Your task to perform on an android device: Is it going to rain tomorrow? Image 0: 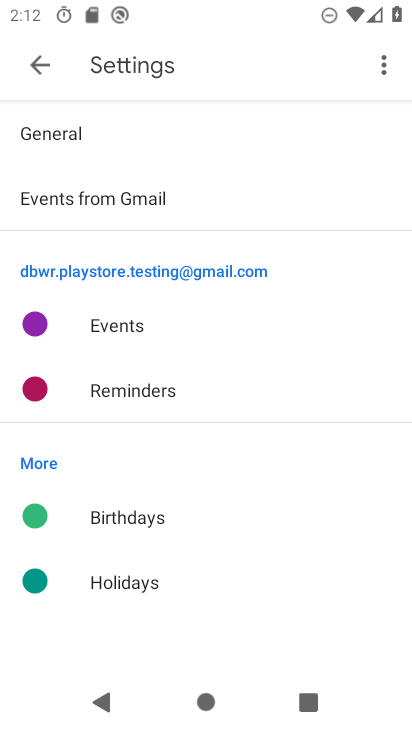
Step 0: press home button
Your task to perform on an android device: Is it going to rain tomorrow? Image 1: 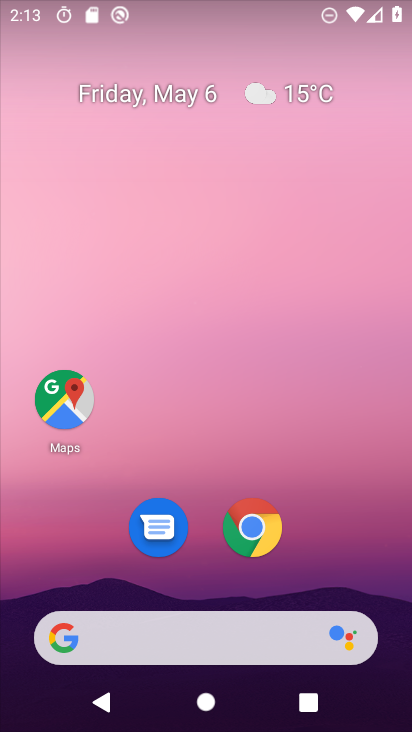
Step 1: drag from (323, 545) to (157, 125)
Your task to perform on an android device: Is it going to rain tomorrow? Image 2: 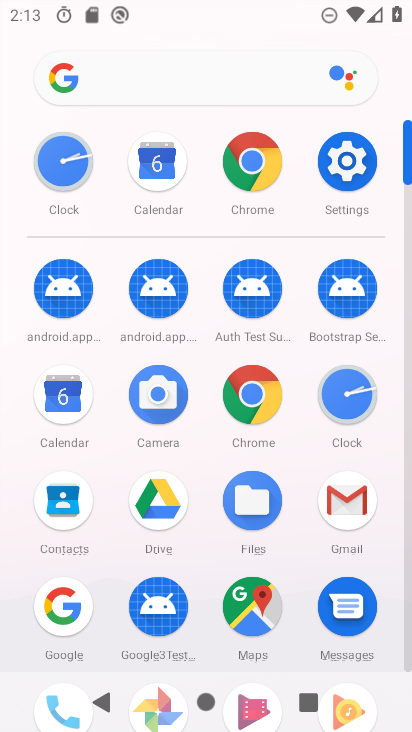
Step 2: click (263, 182)
Your task to perform on an android device: Is it going to rain tomorrow? Image 3: 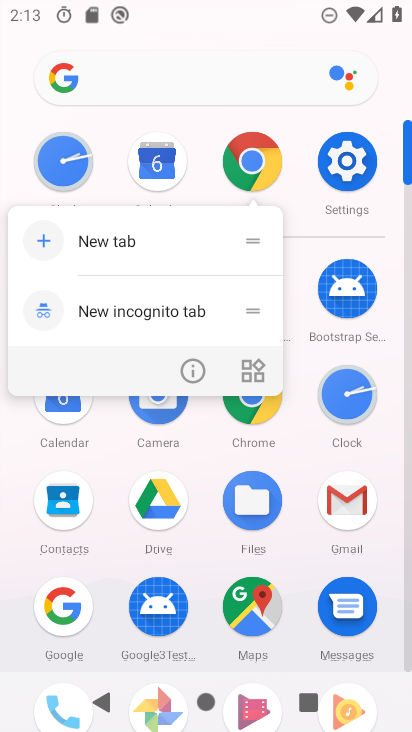
Step 3: click (262, 169)
Your task to perform on an android device: Is it going to rain tomorrow? Image 4: 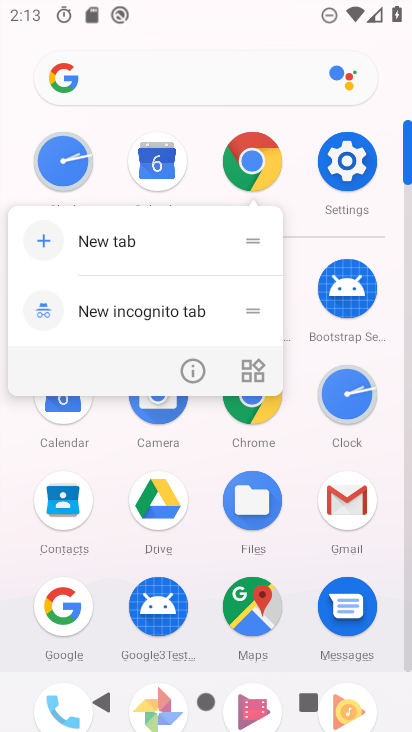
Step 4: click (249, 166)
Your task to perform on an android device: Is it going to rain tomorrow? Image 5: 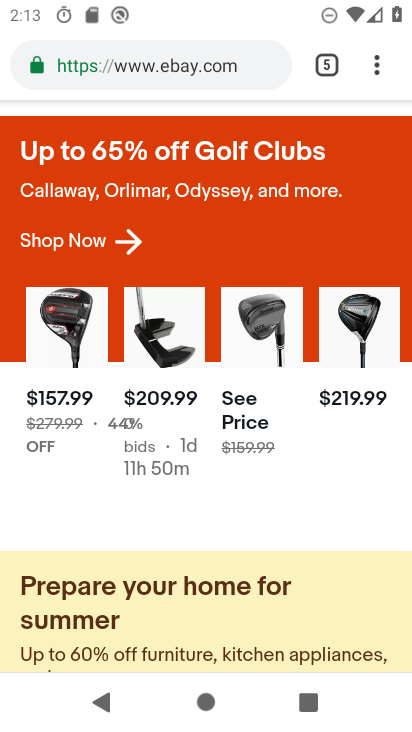
Step 5: click (325, 71)
Your task to perform on an android device: Is it going to rain tomorrow? Image 6: 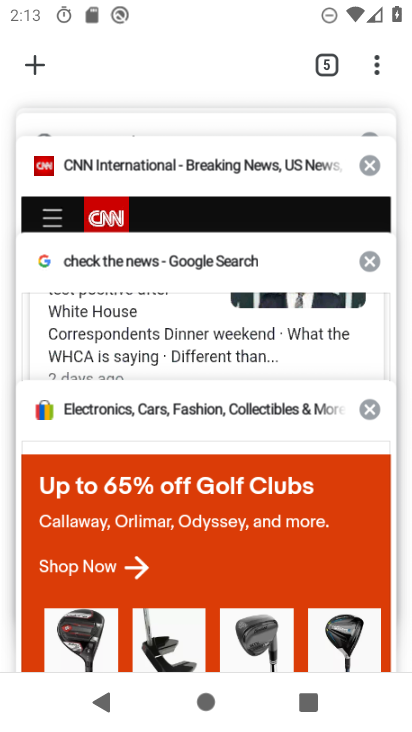
Step 6: drag from (99, 186) to (101, 444)
Your task to perform on an android device: Is it going to rain tomorrow? Image 7: 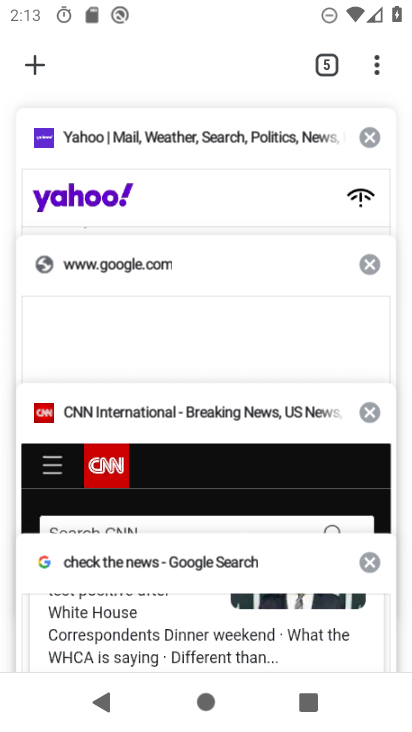
Step 7: click (36, 66)
Your task to perform on an android device: Is it going to rain tomorrow? Image 8: 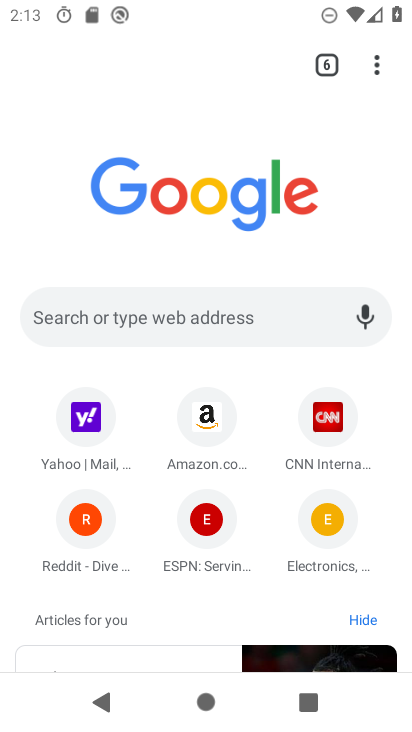
Step 8: click (96, 317)
Your task to perform on an android device: Is it going to rain tomorrow? Image 9: 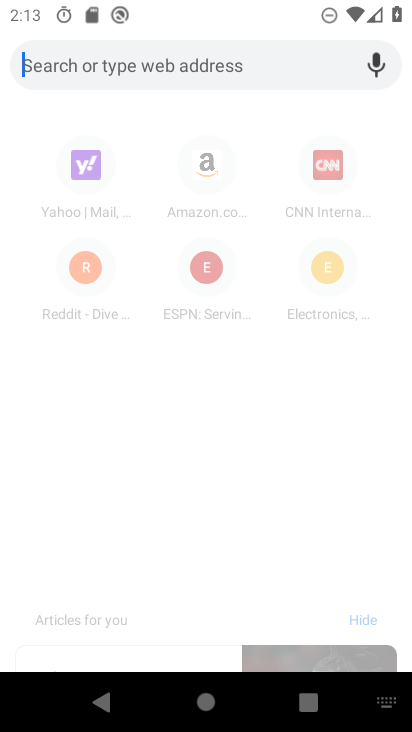
Step 9: type "is it going to rain tomorrow"
Your task to perform on an android device: Is it going to rain tomorrow? Image 10: 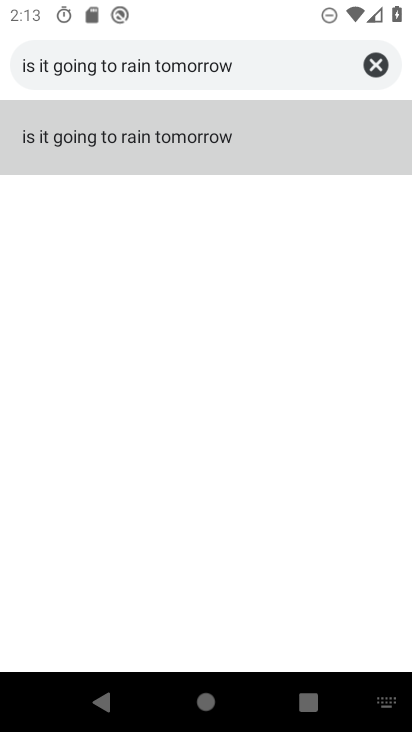
Step 10: click (110, 135)
Your task to perform on an android device: Is it going to rain tomorrow? Image 11: 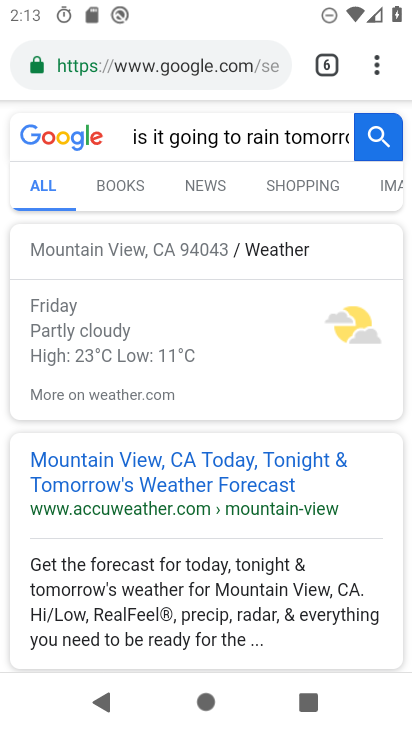
Step 11: task complete